Your task to perform on an android device: delete location history Image 0: 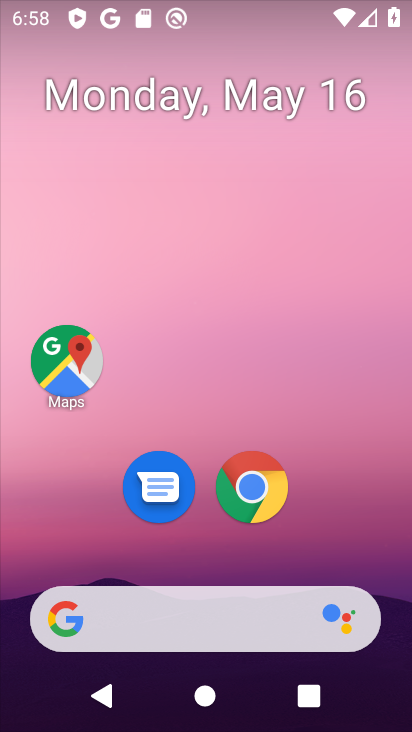
Step 0: drag from (376, 545) to (313, 28)
Your task to perform on an android device: delete location history Image 1: 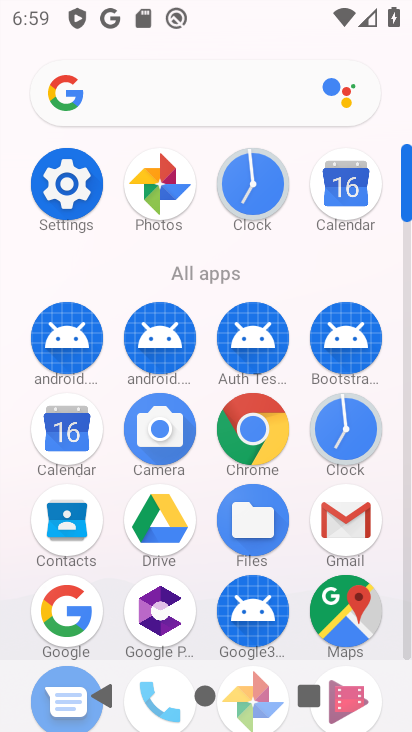
Step 1: click (330, 604)
Your task to perform on an android device: delete location history Image 2: 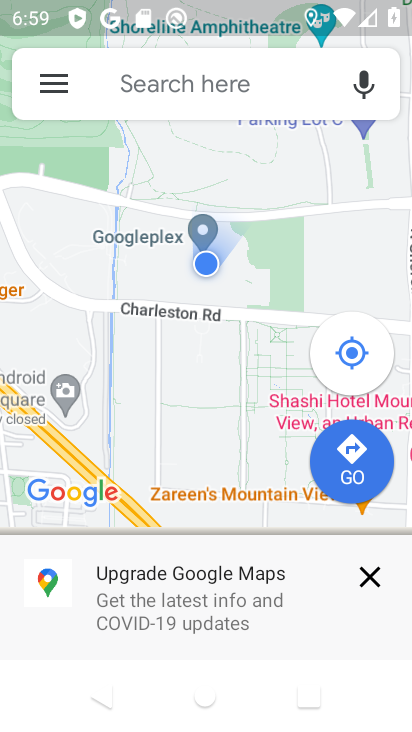
Step 2: click (45, 82)
Your task to perform on an android device: delete location history Image 3: 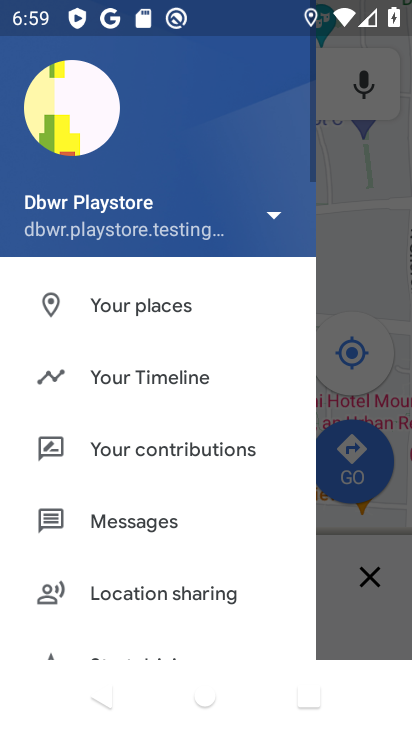
Step 3: click (181, 378)
Your task to perform on an android device: delete location history Image 4: 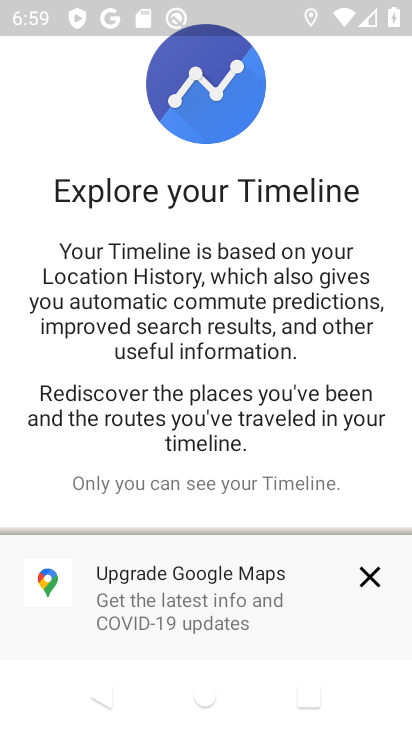
Step 4: click (374, 575)
Your task to perform on an android device: delete location history Image 5: 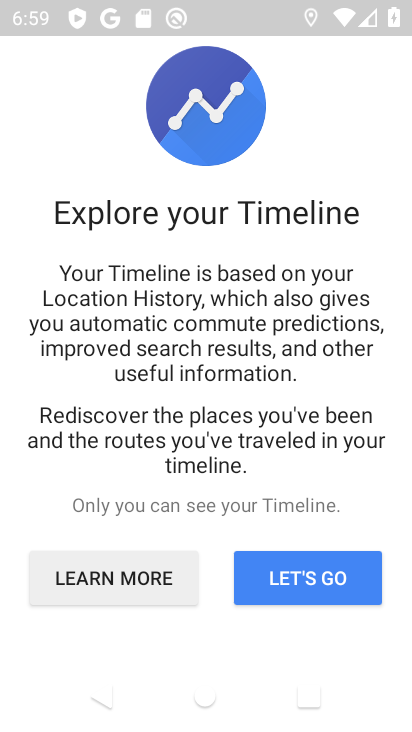
Step 5: click (360, 571)
Your task to perform on an android device: delete location history Image 6: 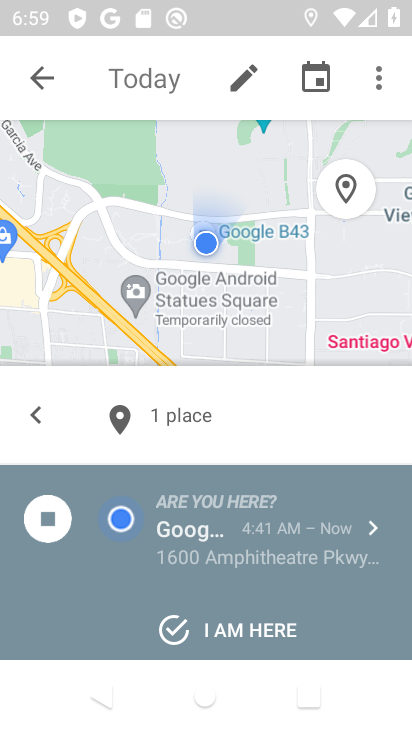
Step 6: click (383, 85)
Your task to perform on an android device: delete location history Image 7: 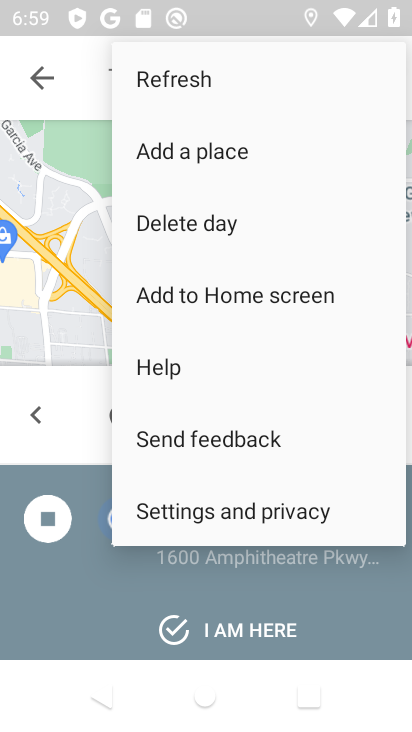
Step 7: click (224, 227)
Your task to perform on an android device: delete location history Image 8: 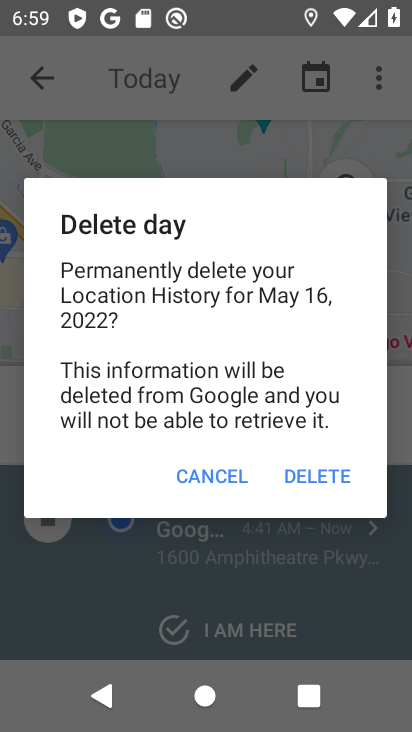
Step 8: click (352, 477)
Your task to perform on an android device: delete location history Image 9: 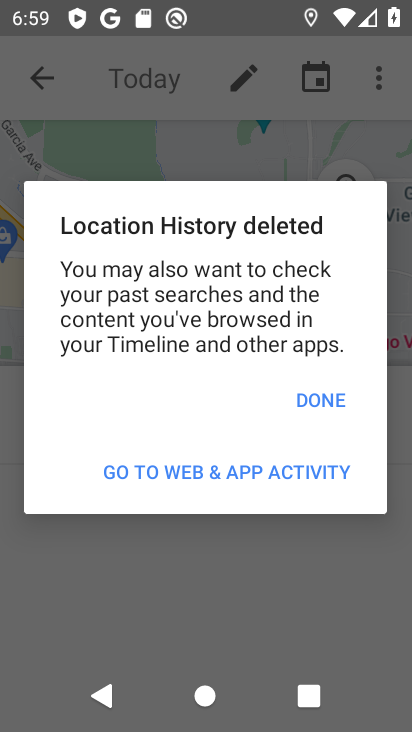
Step 9: click (337, 402)
Your task to perform on an android device: delete location history Image 10: 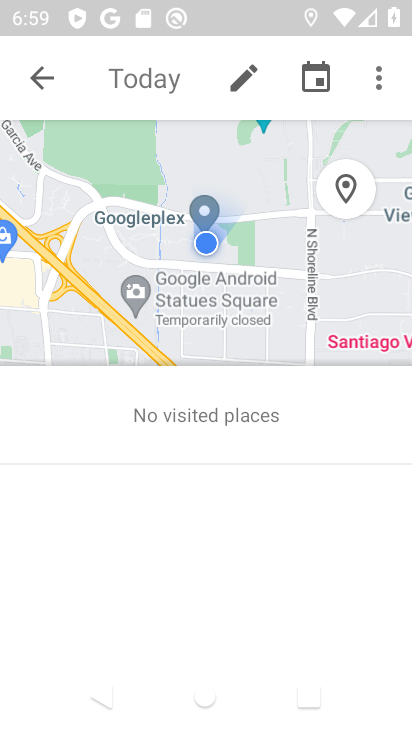
Step 10: task complete